Your task to perform on an android device: What's on my calendar tomorrow? Image 0: 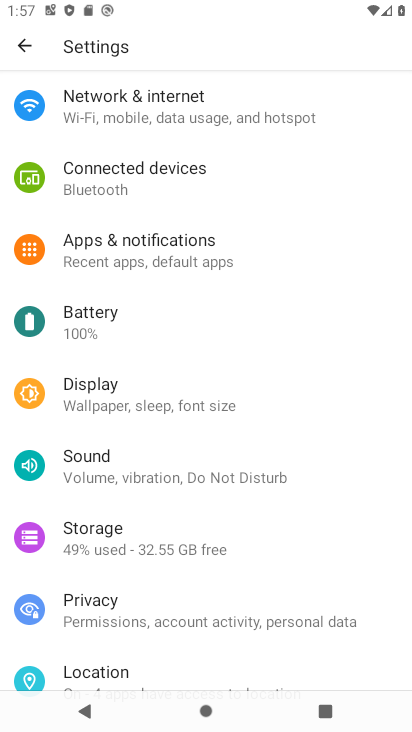
Step 0: press home button
Your task to perform on an android device: What's on my calendar tomorrow? Image 1: 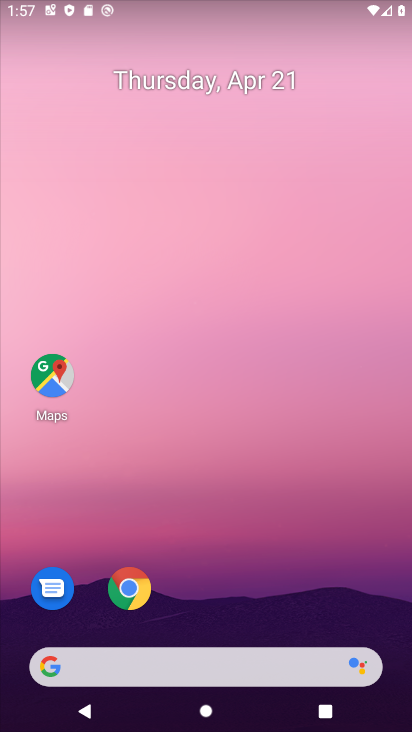
Step 1: drag from (223, 609) to (224, 97)
Your task to perform on an android device: What's on my calendar tomorrow? Image 2: 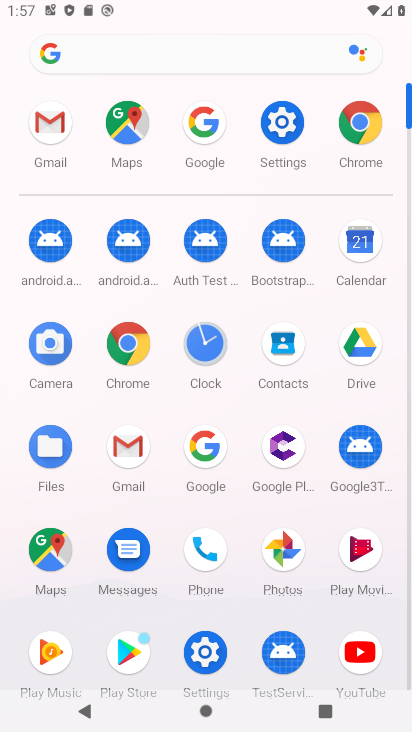
Step 2: click (361, 266)
Your task to perform on an android device: What's on my calendar tomorrow? Image 3: 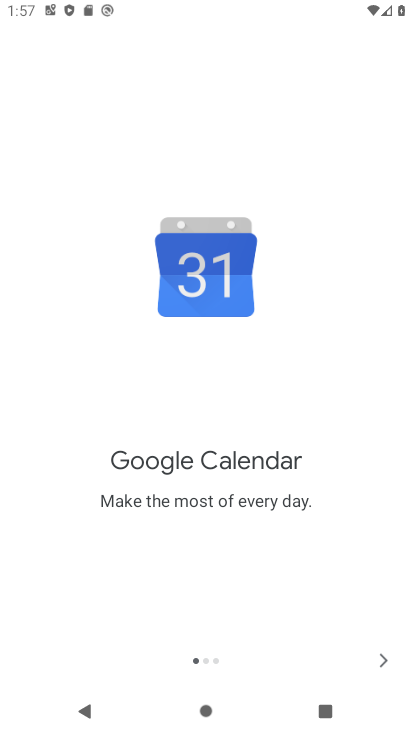
Step 3: click (362, 647)
Your task to perform on an android device: What's on my calendar tomorrow? Image 4: 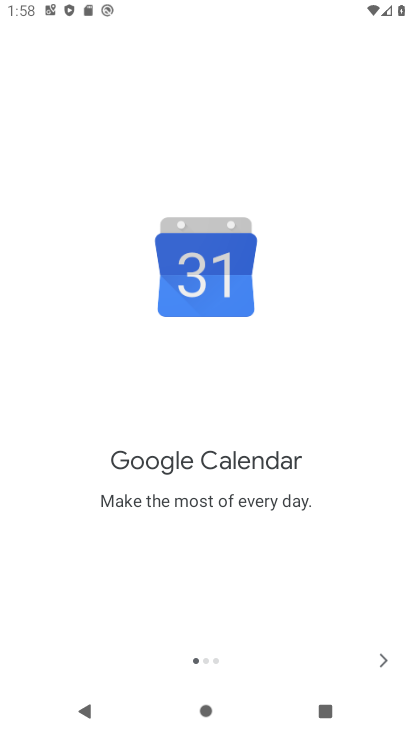
Step 4: click (380, 665)
Your task to perform on an android device: What's on my calendar tomorrow? Image 5: 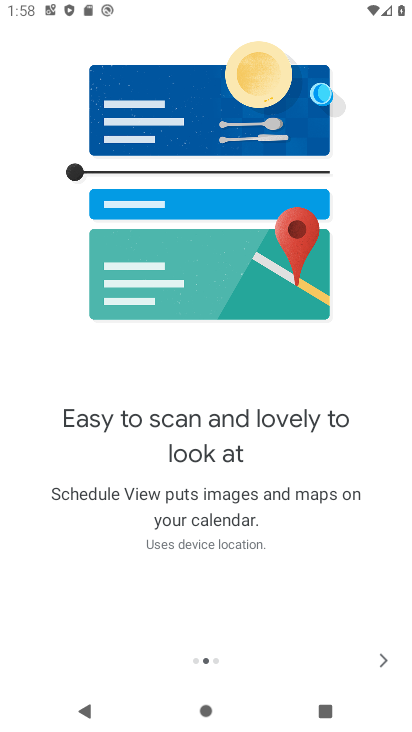
Step 5: click (377, 664)
Your task to perform on an android device: What's on my calendar tomorrow? Image 6: 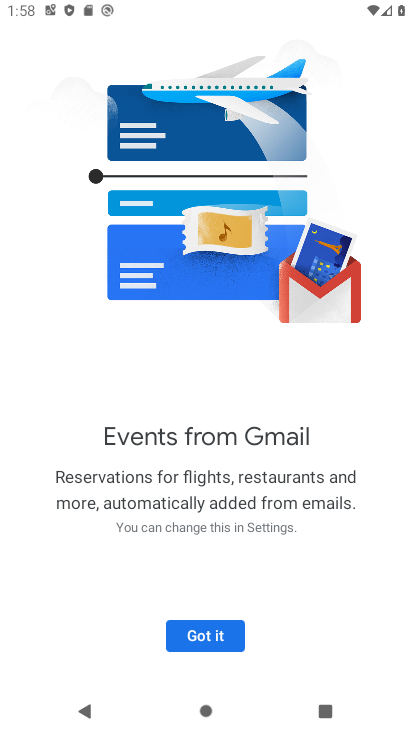
Step 6: click (204, 636)
Your task to perform on an android device: What's on my calendar tomorrow? Image 7: 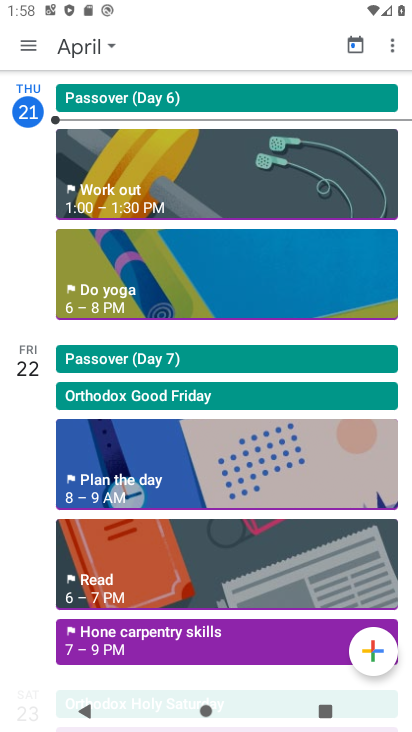
Step 7: click (98, 50)
Your task to perform on an android device: What's on my calendar tomorrow? Image 8: 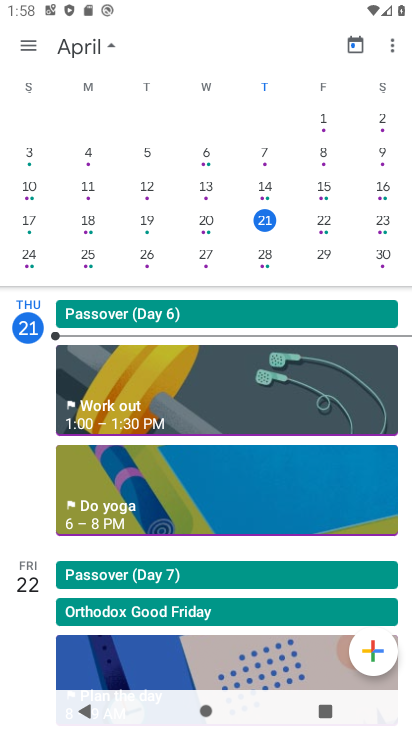
Step 8: click (331, 226)
Your task to perform on an android device: What's on my calendar tomorrow? Image 9: 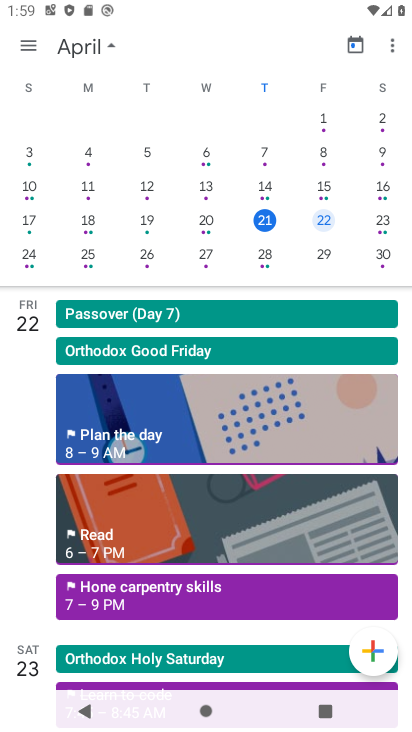
Step 9: task complete